Your task to perform on an android device: turn on data saver in the chrome app Image 0: 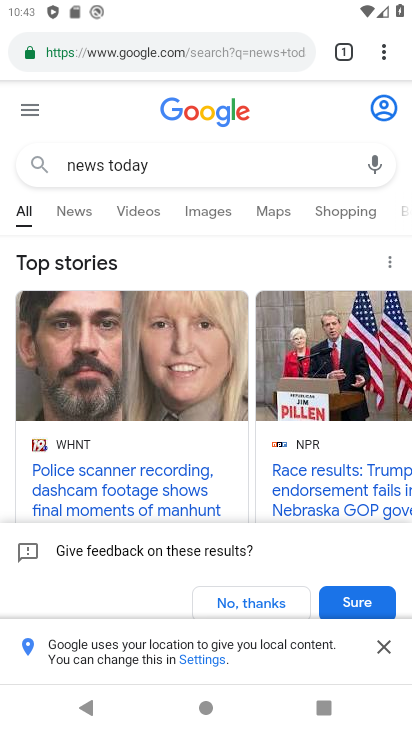
Step 0: drag from (387, 50) to (176, 577)
Your task to perform on an android device: turn on data saver in the chrome app Image 1: 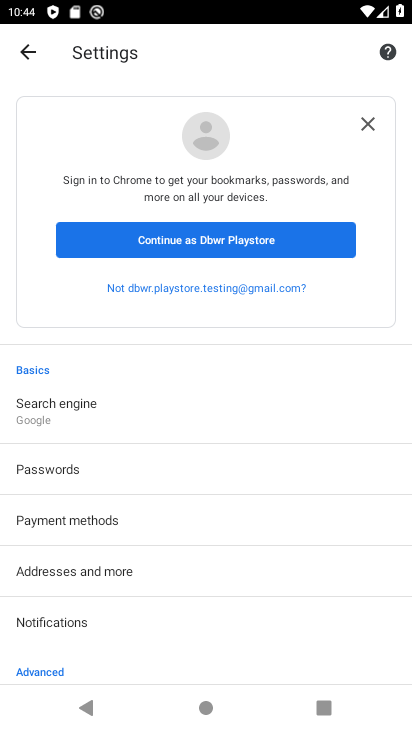
Step 1: drag from (104, 601) to (90, 40)
Your task to perform on an android device: turn on data saver in the chrome app Image 2: 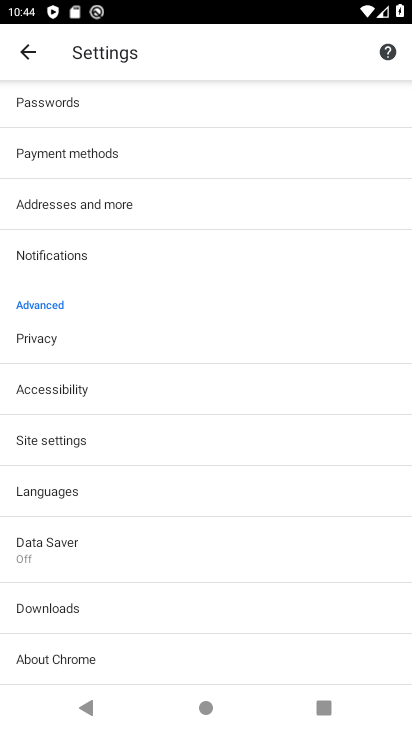
Step 2: click (62, 555)
Your task to perform on an android device: turn on data saver in the chrome app Image 3: 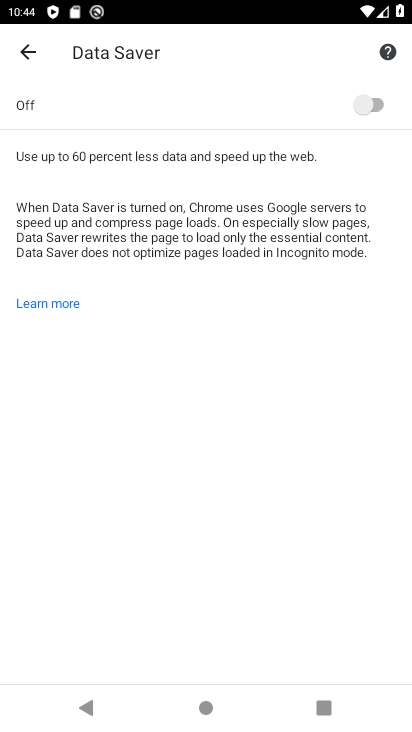
Step 3: click (366, 105)
Your task to perform on an android device: turn on data saver in the chrome app Image 4: 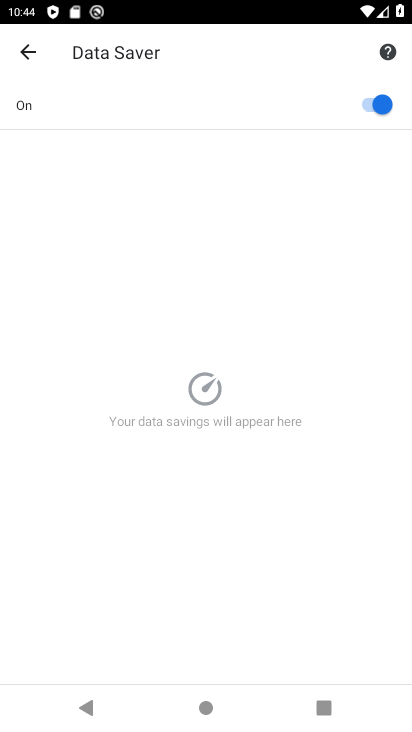
Step 4: task complete